Your task to perform on an android device: turn off sleep mode Image 0: 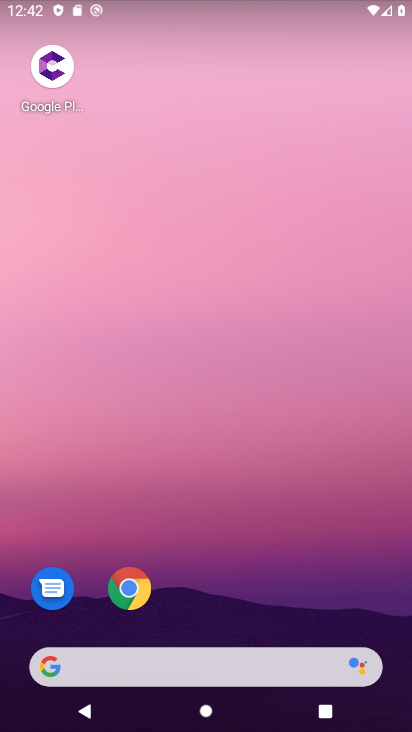
Step 0: drag from (189, 612) to (208, 168)
Your task to perform on an android device: turn off sleep mode Image 1: 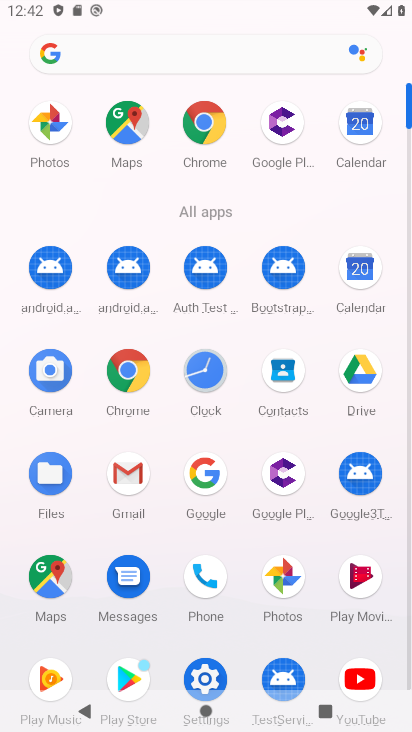
Step 1: click (200, 675)
Your task to perform on an android device: turn off sleep mode Image 2: 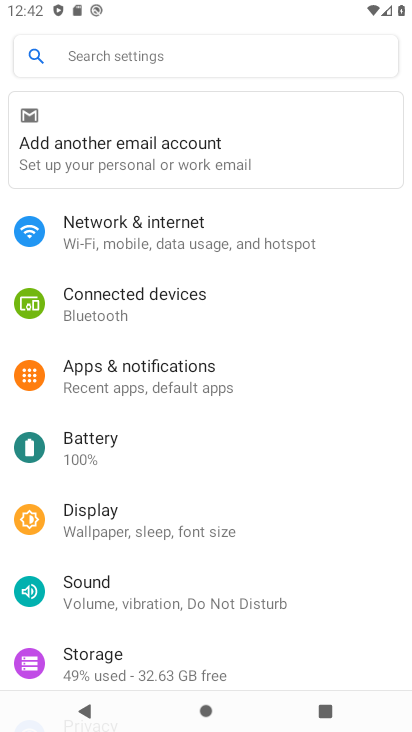
Step 2: task complete